Your task to perform on an android device: check storage Image 0: 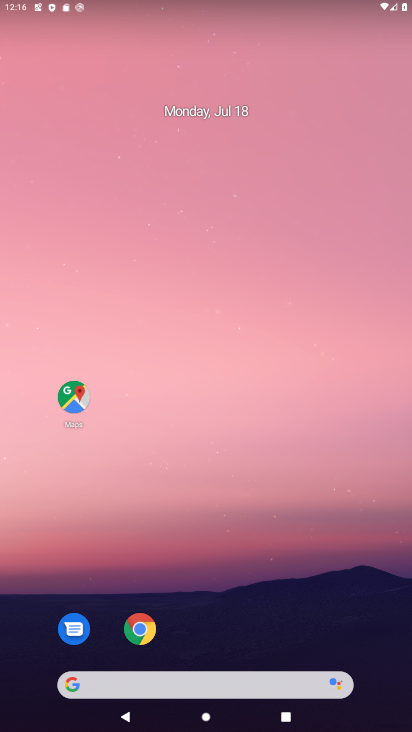
Step 0: drag from (202, 605) to (194, 243)
Your task to perform on an android device: check storage Image 1: 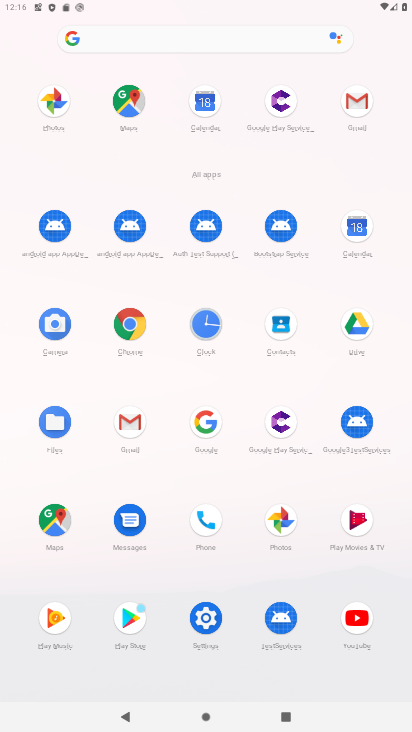
Step 1: click (221, 609)
Your task to perform on an android device: check storage Image 2: 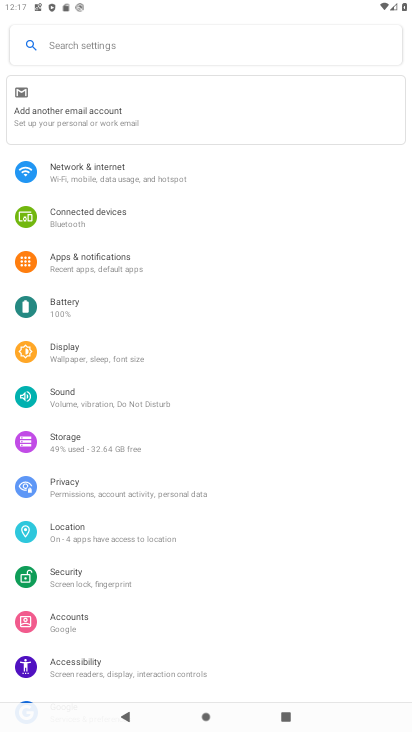
Step 2: click (91, 434)
Your task to perform on an android device: check storage Image 3: 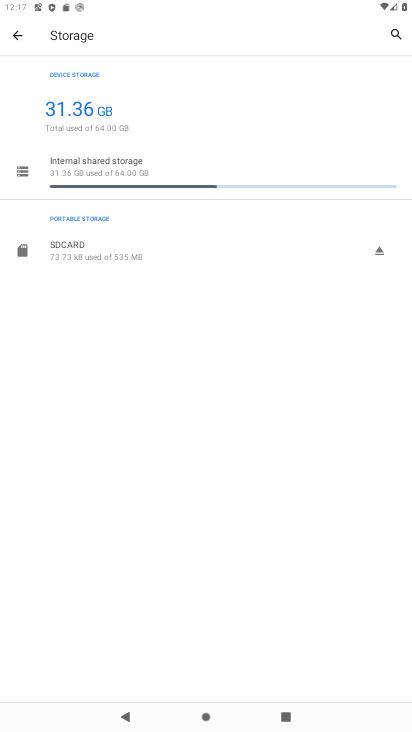
Step 3: task complete